Your task to perform on an android device: check storage Image 0: 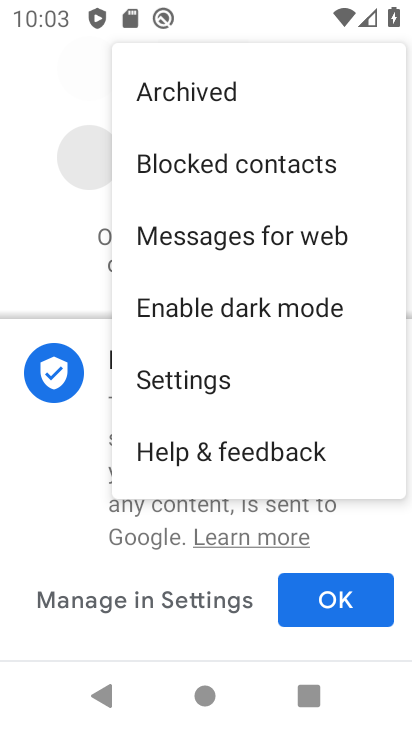
Step 0: press home button
Your task to perform on an android device: check storage Image 1: 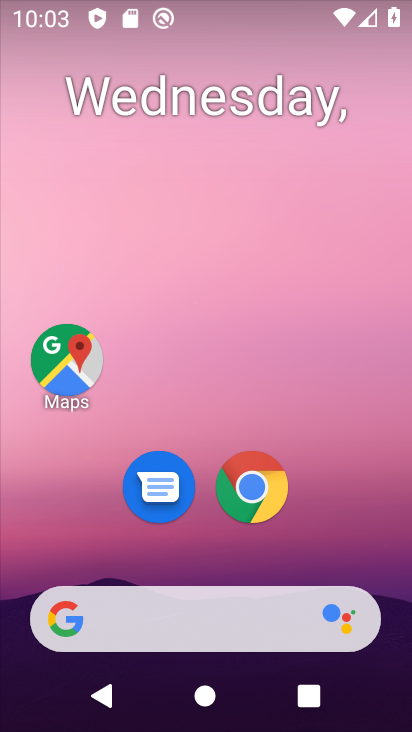
Step 1: drag from (251, 689) to (147, 9)
Your task to perform on an android device: check storage Image 2: 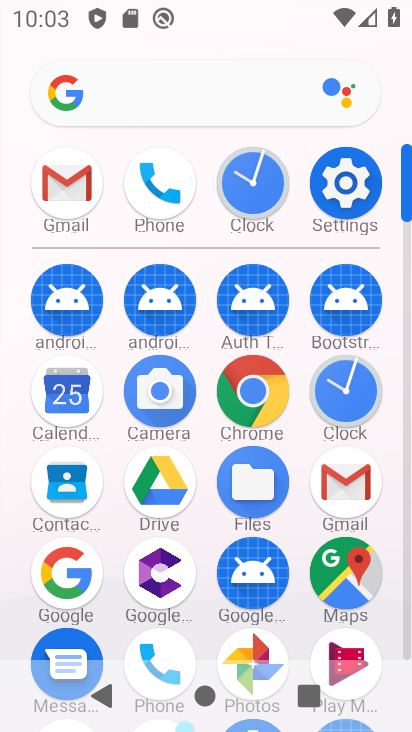
Step 2: click (357, 192)
Your task to perform on an android device: check storage Image 3: 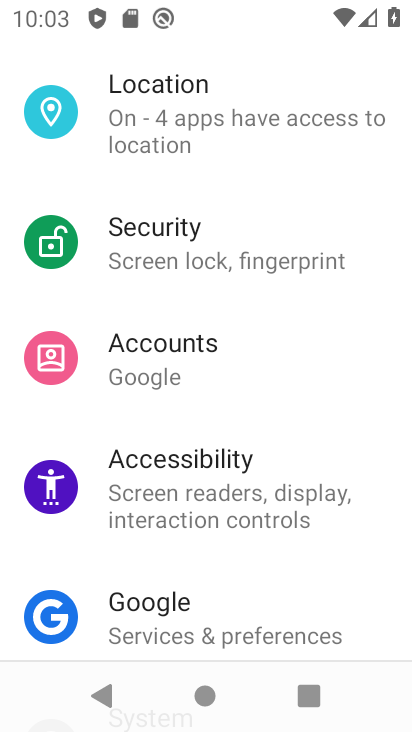
Step 3: drag from (231, 565) to (165, 92)
Your task to perform on an android device: check storage Image 4: 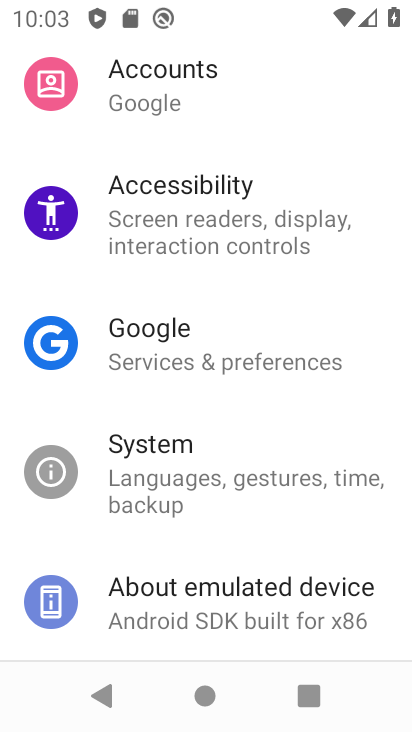
Step 4: drag from (212, 585) to (130, 117)
Your task to perform on an android device: check storage Image 5: 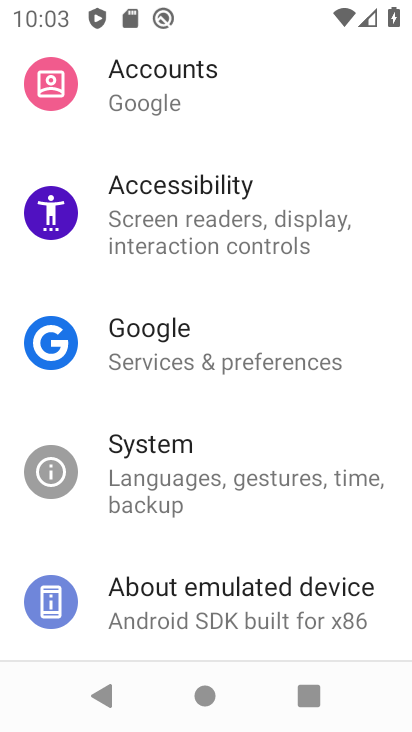
Step 5: drag from (257, 158) to (258, 596)
Your task to perform on an android device: check storage Image 6: 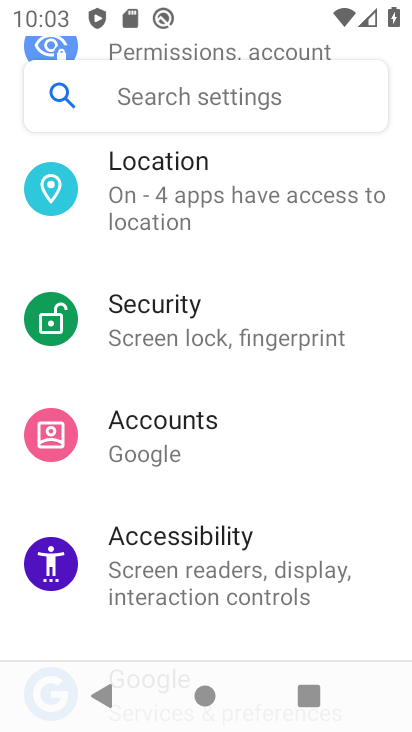
Step 6: drag from (301, 237) to (277, 584)
Your task to perform on an android device: check storage Image 7: 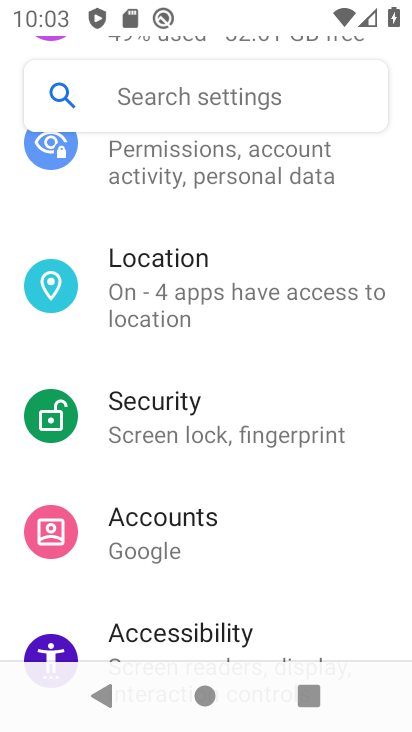
Step 7: drag from (329, 276) to (236, 648)
Your task to perform on an android device: check storage Image 8: 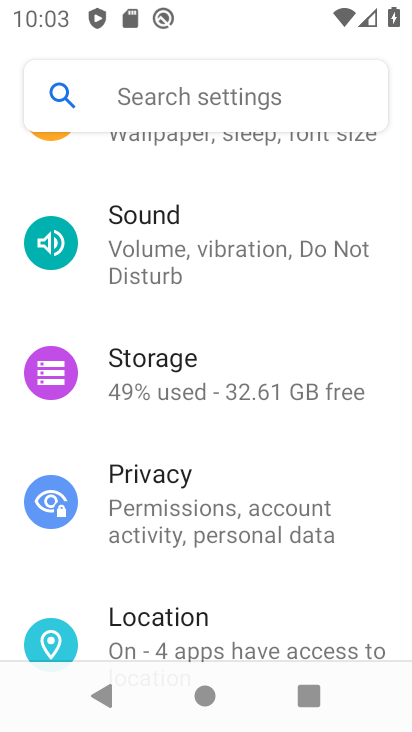
Step 8: click (240, 368)
Your task to perform on an android device: check storage Image 9: 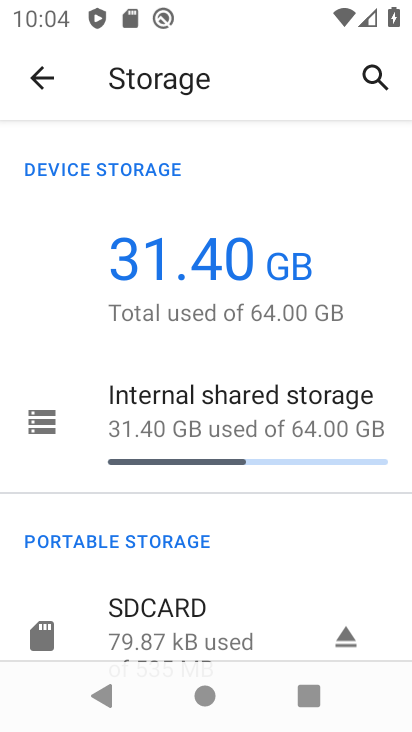
Step 9: task complete